Your task to perform on an android device: change notifications settings Image 0: 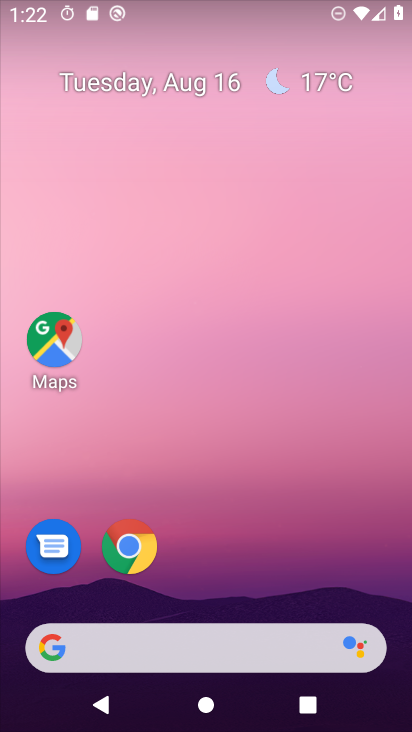
Step 0: drag from (214, 588) to (212, 0)
Your task to perform on an android device: change notifications settings Image 1: 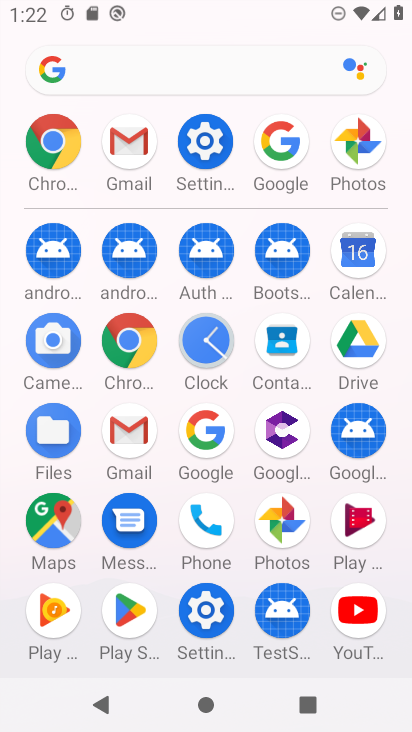
Step 1: click (201, 146)
Your task to perform on an android device: change notifications settings Image 2: 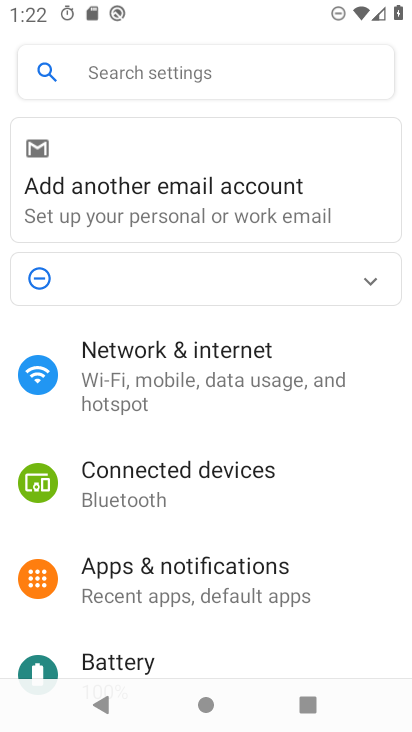
Step 2: click (187, 578)
Your task to perform on an android device: change notifications settings Image 3: 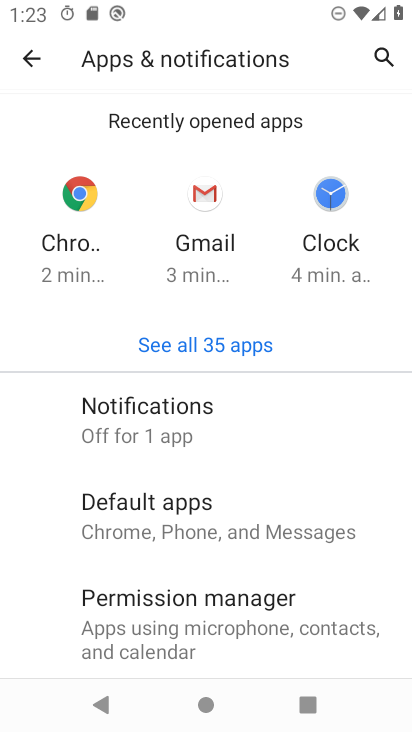
Step 3: click (143, 406)
Your task to perform on an android device: change notifications settings Image 4: 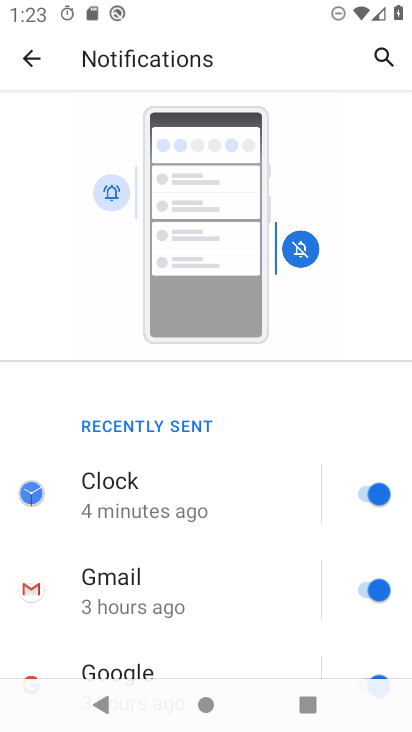
Step 4: drag from (193, 651) to (179, 324)
Your task to perform on an android device: change notifications settings Image 5: 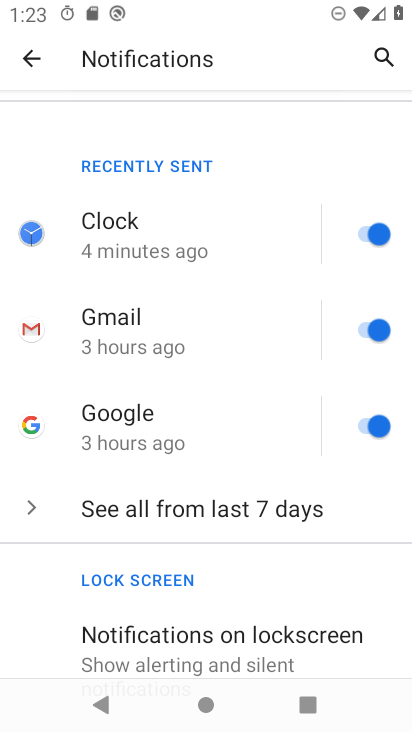
Step 5: drag from (189, 640) to (193, 386)
Your task to perform on an android device: change notifications settings Image 6: 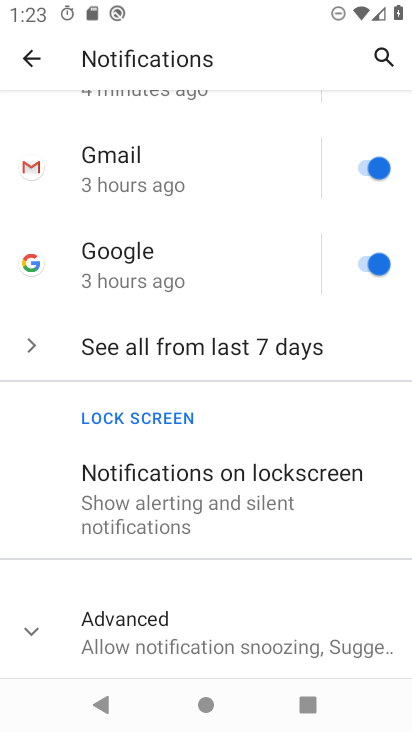
Step 6: click (158, 639)
Your task to perform on an android device: change notifications settings Image 7: 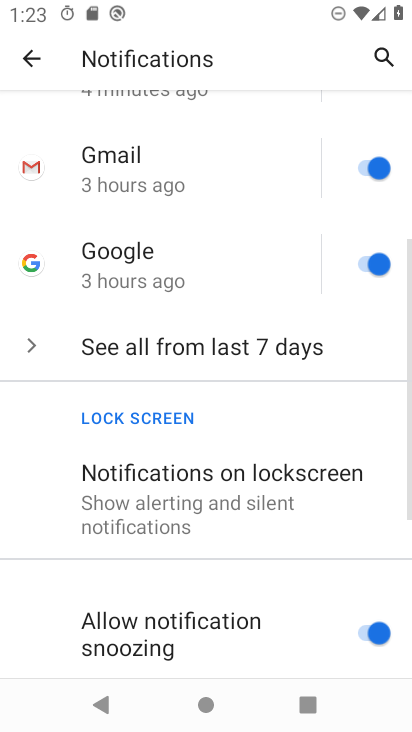
Step 7: click (359, 632)
Your task to perform on an android device: change notifications settings Image 8: 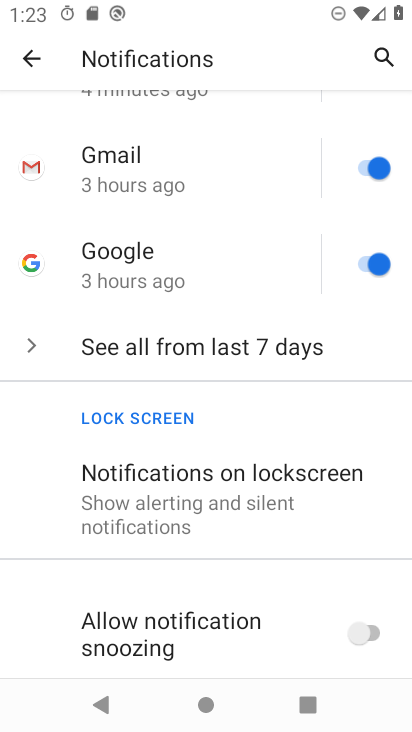
Step 8: task complete